Your task to perform on an android device: Open settings Image 0: 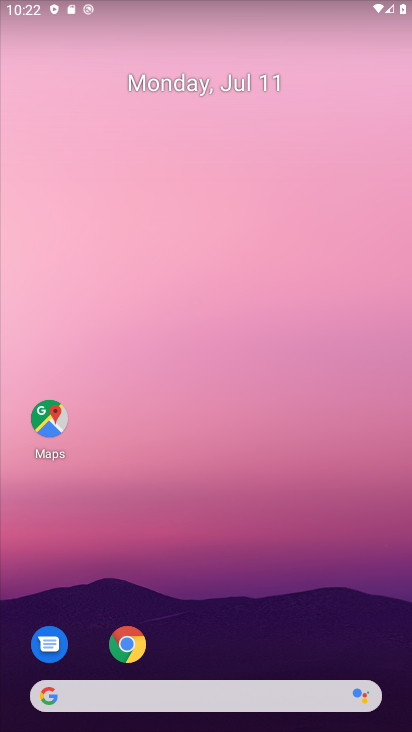
Step 0: click (182, 162)
Your task to perform on an android device: Open settings Image 1: 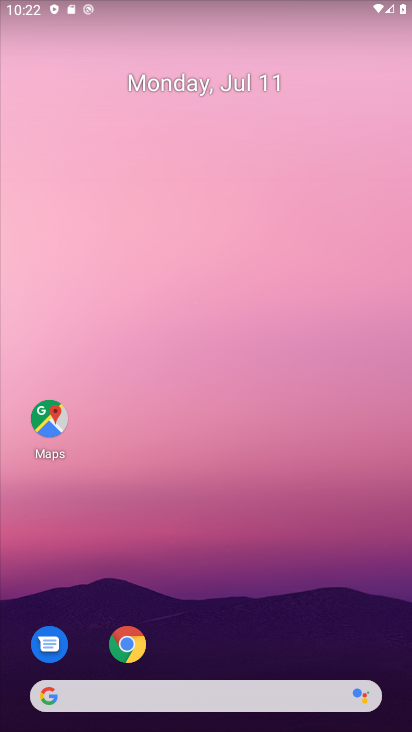
Step 1: drag from (220, 678) to (191, 274)
Your task to perform on an android device: Open settings Image 2: 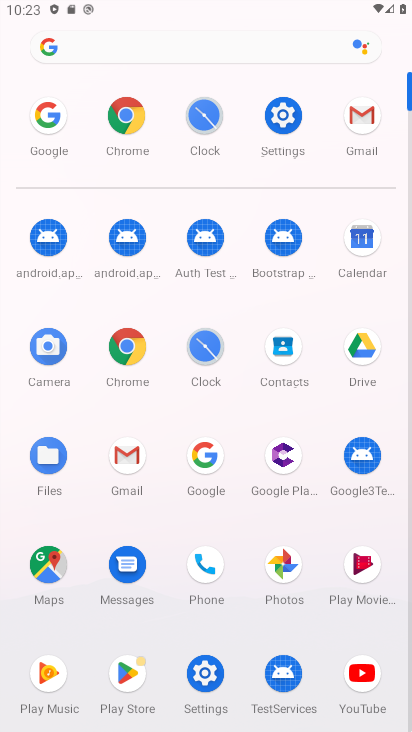
Step 2: click (196, 678)
Your task to perform on an android device: Open settings Image 3: 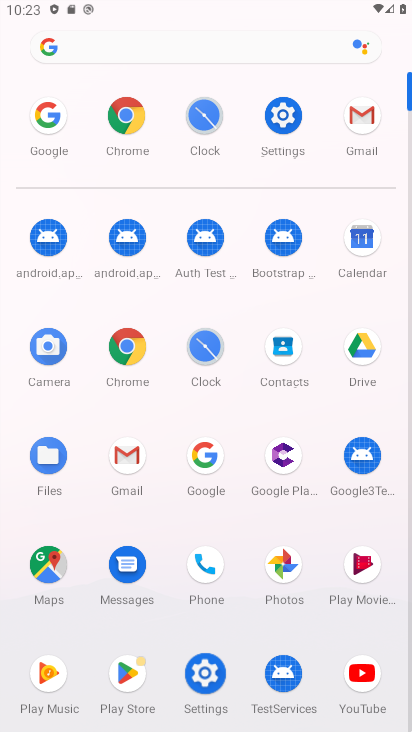
Step 3: click (196, 678)
Your task to perform on an android device: Open settings Image 4: 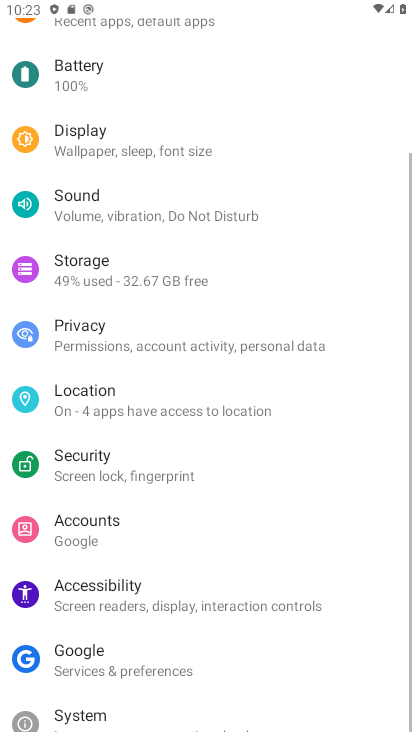
Step 4: click (196, 678)
Your task to perform on an android device: Open settings Image 5: 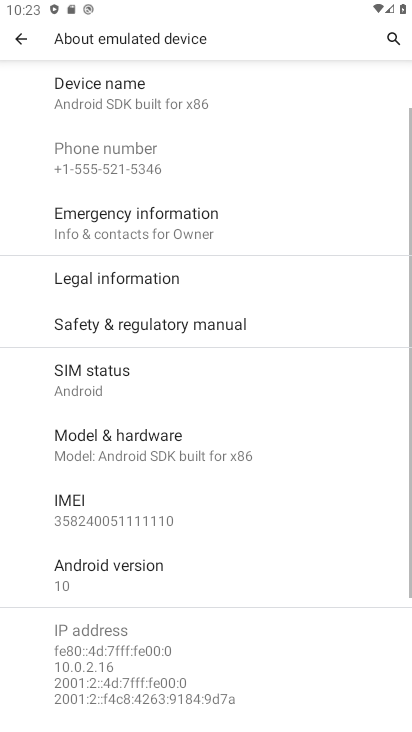
Step 5: drag from (194, 442) to (161, 180)
Your task to perform on an android device: Open settings Image 6: 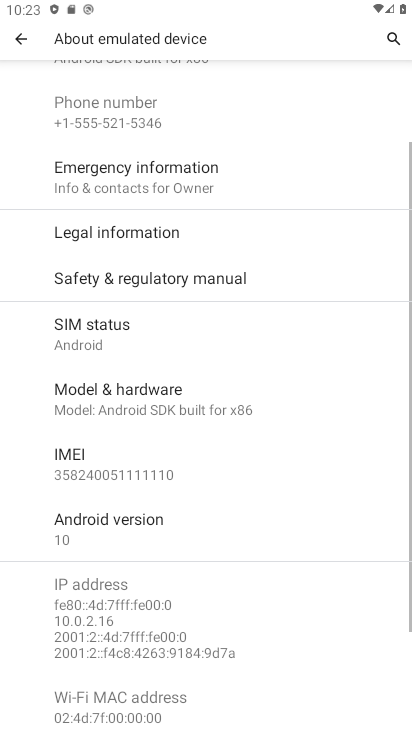
Step 6: click (18, 34)
Your task to perform on an android device: Open settings Image 7: 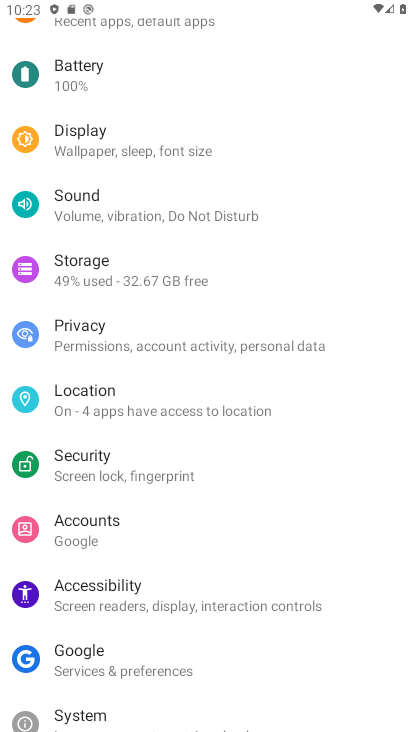
Step 7: task complete